Your task to perform on an android device: move an email to a new category in the gmail app Image 0: 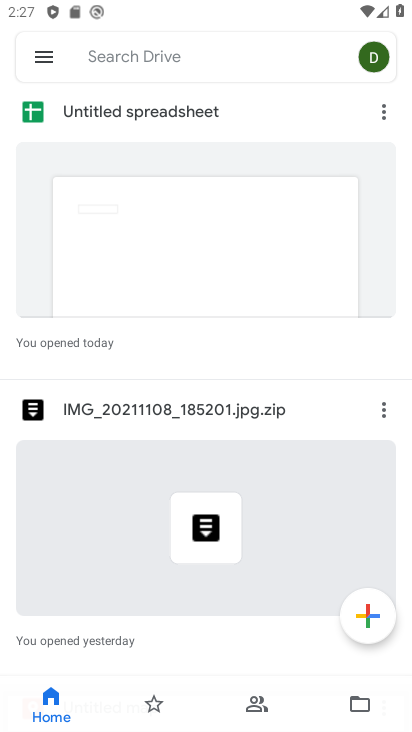
Step 0: press home button
Your task to perform on an android device: move an email to a new category in the gmail app Image 1: 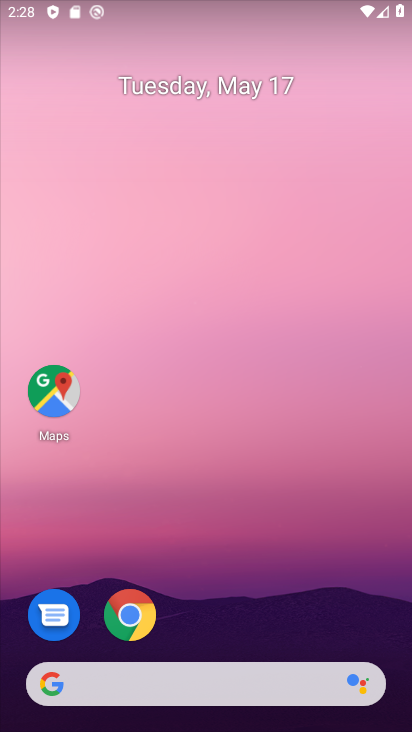
Step 1: drag from (232, 725) to (246, 191)
Your task to perform on an android device: move an email to a new category in the gmail app Image 2: 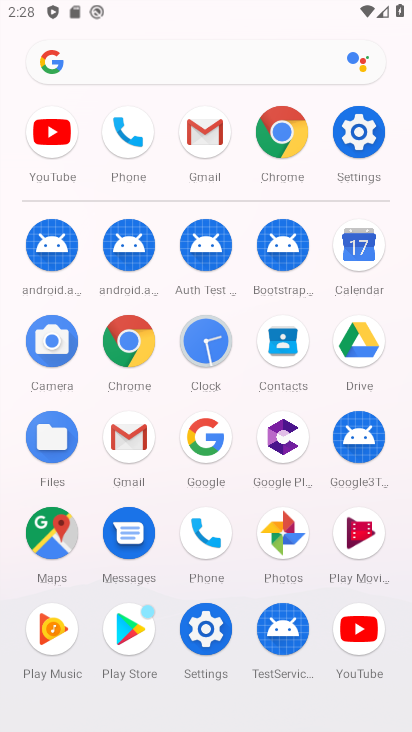
Step 2: click (131, 435)
Your task to perform on an android device: move an email to a new category in the gmail app Image 3: 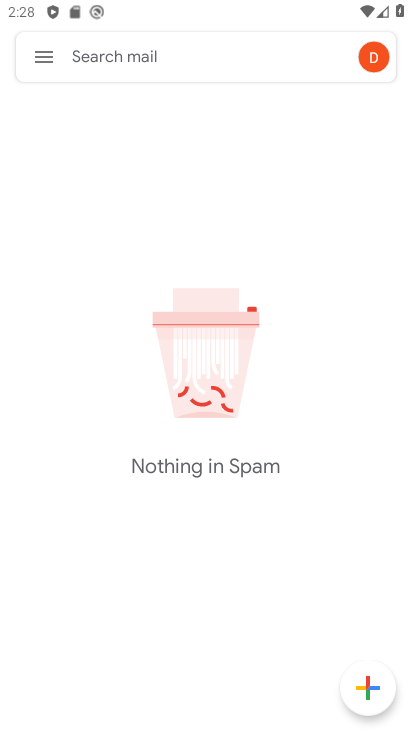
Step 3: click (38, 51)
Your task to perform on an android device: move an email to a new category in the gmail app Image 4: 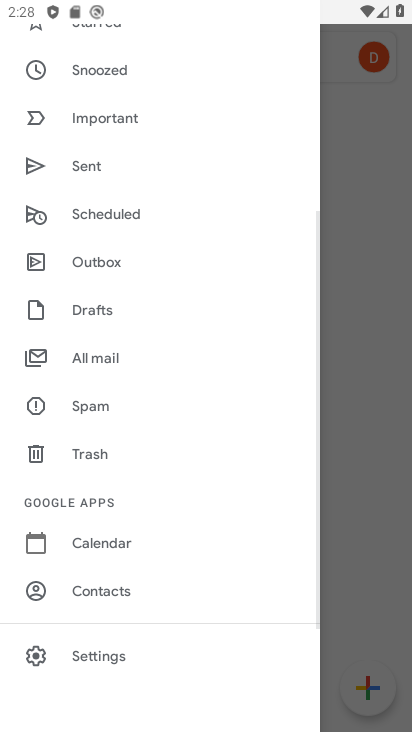
Step 4: drag from (168, 182) to (168, 603)
Your task to perform on an android device: move an email to a new category in the gmail app Image 5: 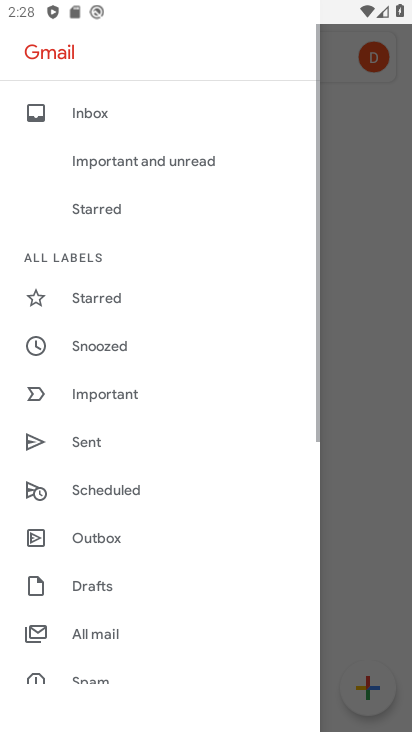
Step 5: click (82, 108)
Your task to perform on an android device: move an email to a new category in the gmail app Image 6: 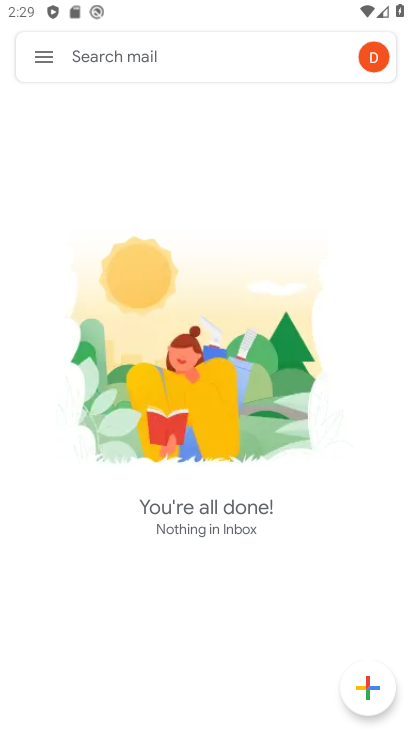
Step 6: task complete